Your task to perform on an android device: all mails in gmail Image 0: 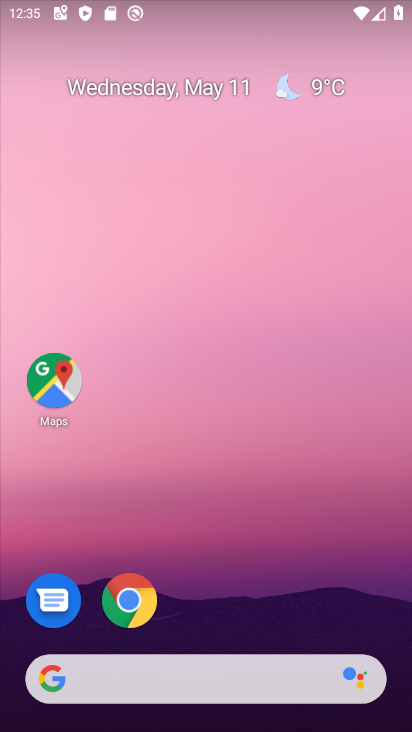
Step 0: drag from (219, 717) to (260, 54)
Your task to perform on an android device: all mails in gmail Image 1: 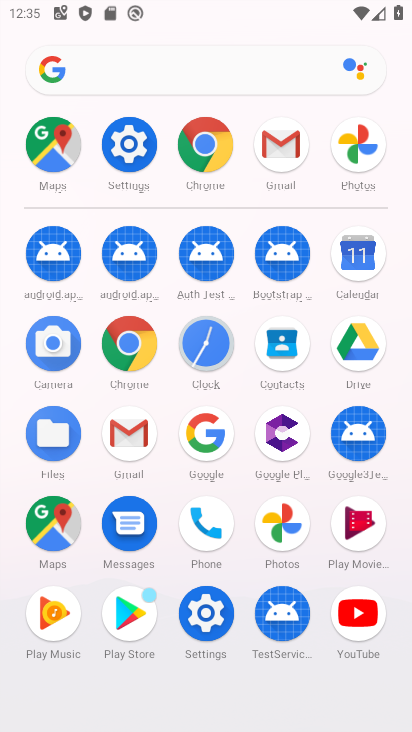
Step 1: click (277, 147)
Your task to perform on an android device: all mails in gmail Image 2: 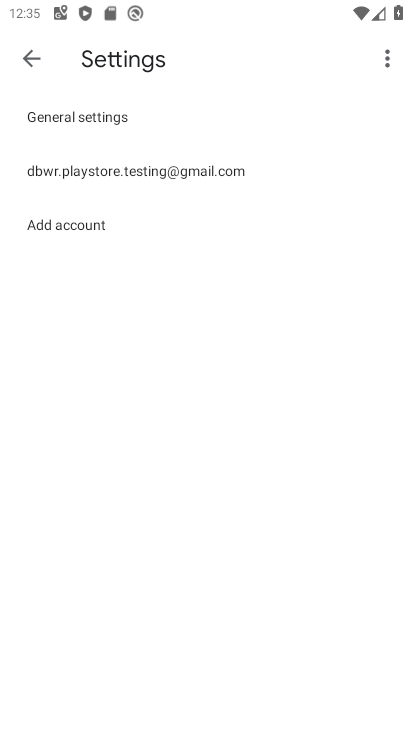
Step 2: click (20, 54)
Your task to perform on an android device: all mails in gmail Image 3: 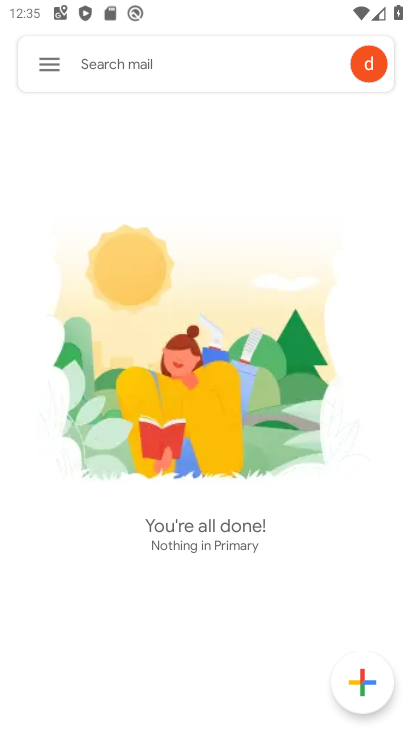
Step 3: click (55, 65)
Your task to perform on an android device: all mails in gmail Image 4: 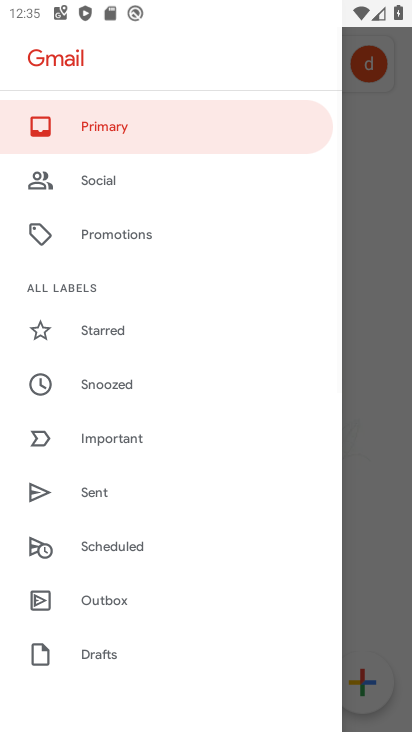
Step 4: drag from (139, 614) to (190, 46)
Your task to perform on an android device: all mails in gmail Image 5: 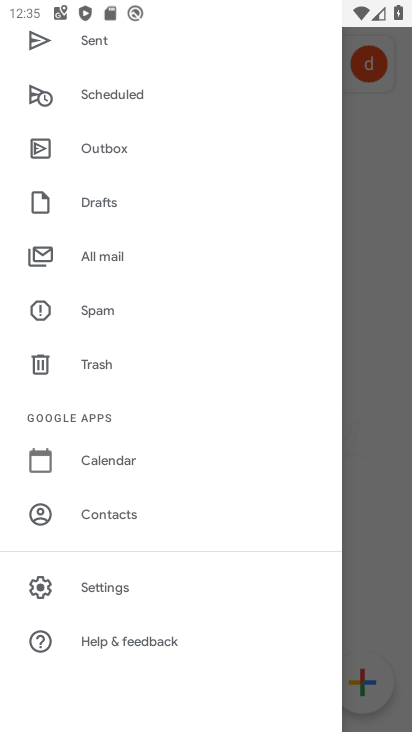
Step 5: click (134, 248)
Your task to perform on an android device: all mails in gmail Image 6: 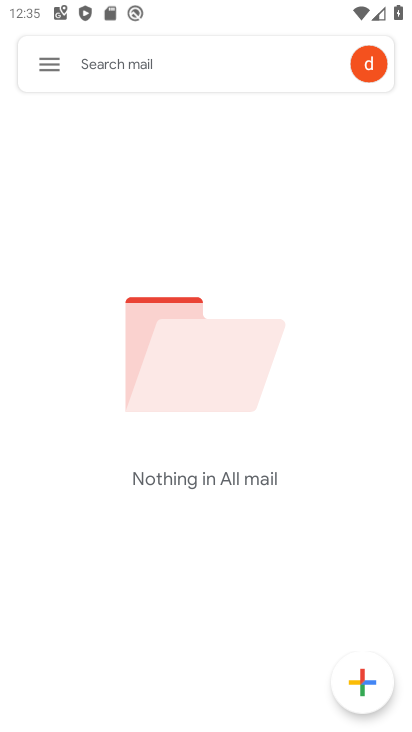
Step 6: task complete